Your task to perform on an android device: Open the phone app and click the voicemail tab. Image 0: 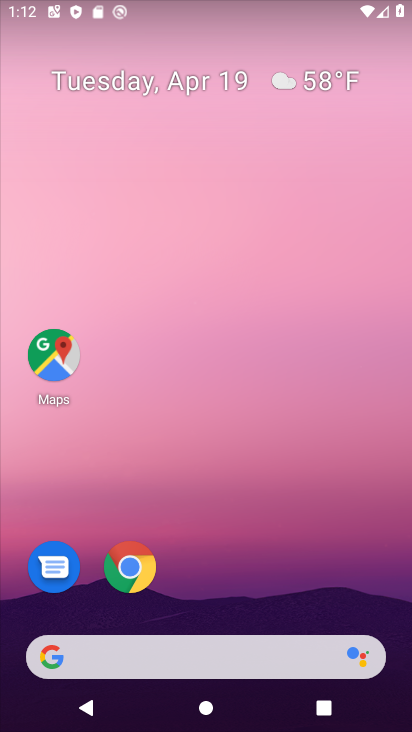
Step 0: drag from (390, 564) to (367, 47)
Your task to perform on an android device: Open the phone app and click the voicemail tab. Image 1: 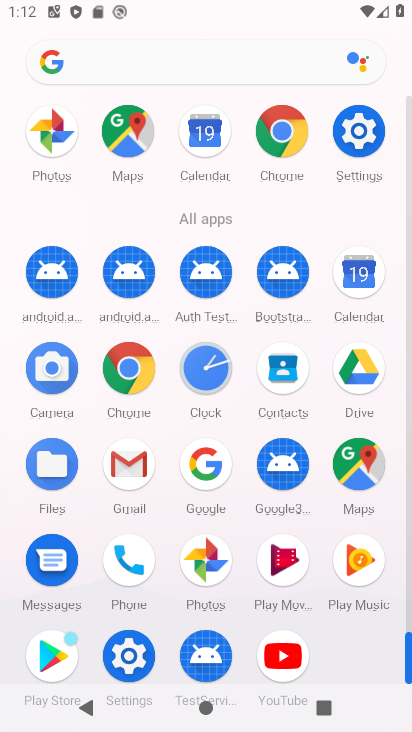
Step 1: click (125, 557)
Your task to perform on an android device: Open the phone app and click the voicemail tab. Image 2: 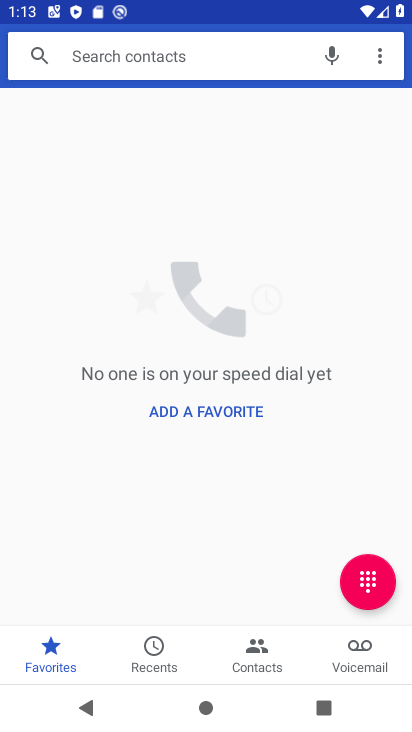
Step 2: click (365, 650)
Your task to perform on an android device: Open the phone app and click the voicemail tab. Image 3: 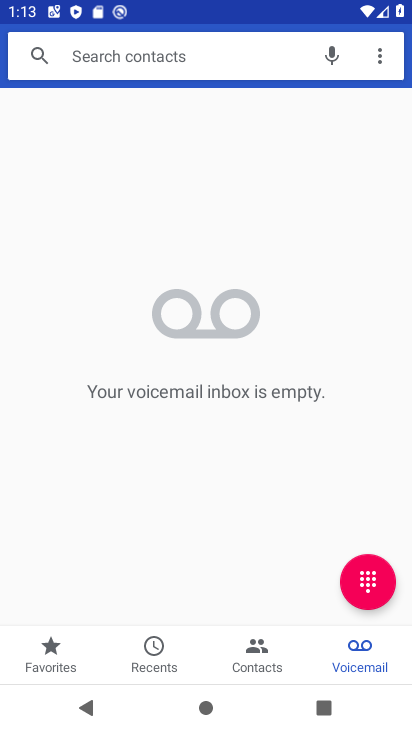
Step 3: task complete